Your task to perform on an android device: see tabs open on other devices in the chrome app Image 0: 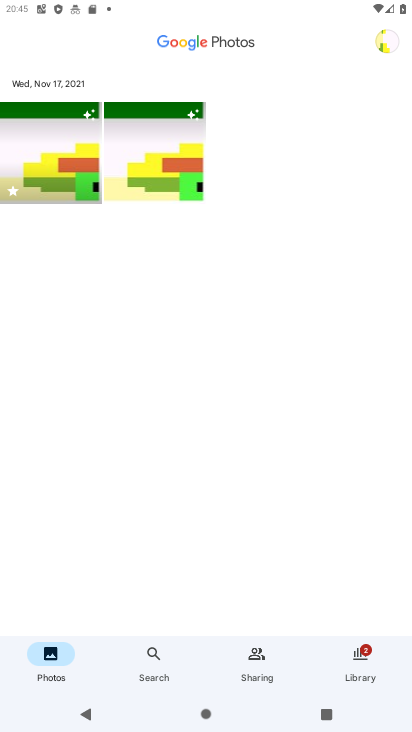
Step 0: press home button
Your task to perform on an android device: see tabs open on other devices in the chrome app Image 1: 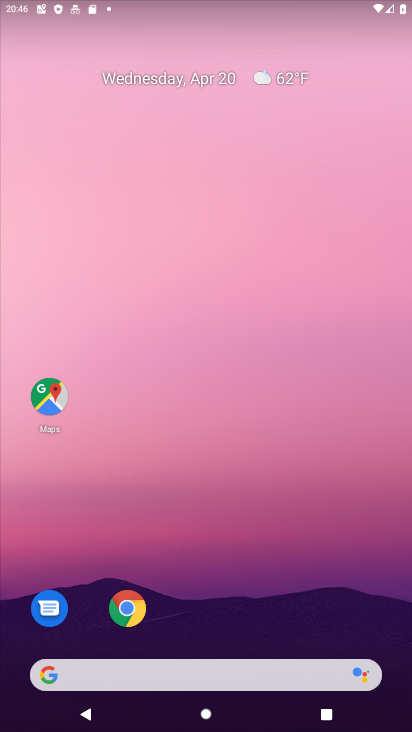
Step 1: drag from (347, 604) to (340, 354)
Your task to perform on an android device: see tabs open on other devices in the chrome app Image 2: 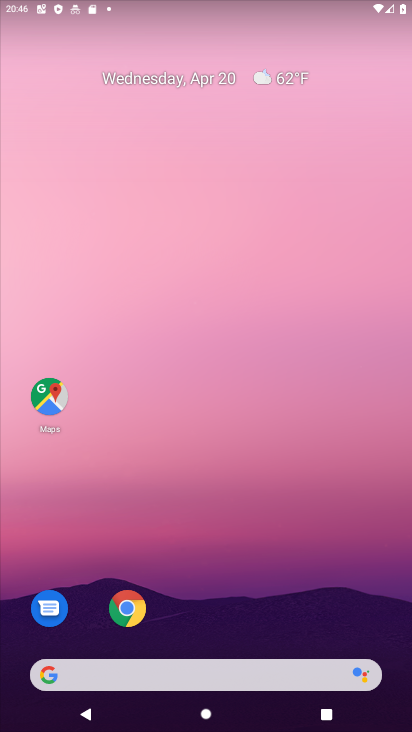
Step 2: click (115, 603)
Your task to perform on an android device: see tabs open on other devices in the chrome app Image 3: 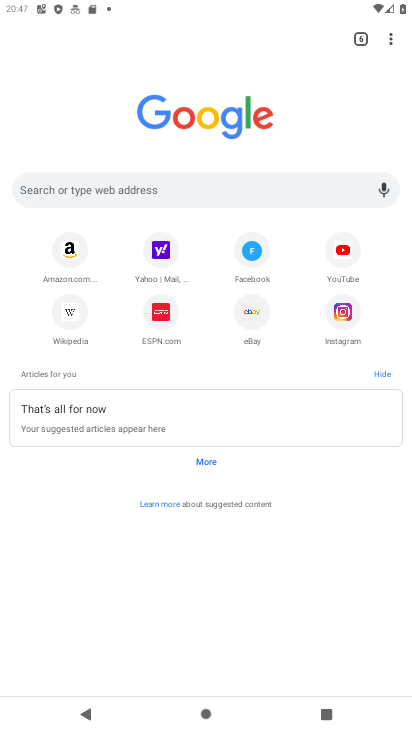
Step 3: task complete